Your task to perform on an android device: Go to Maps Image 0: 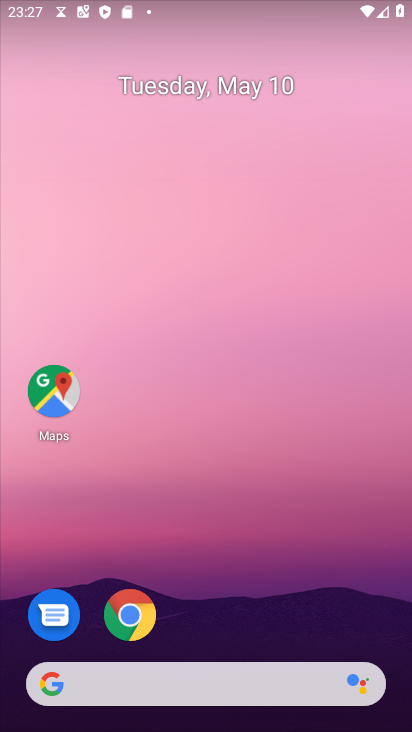
Step 0: click (50, 391)
Your task to perform on an android device: Go to Maps Image 1: 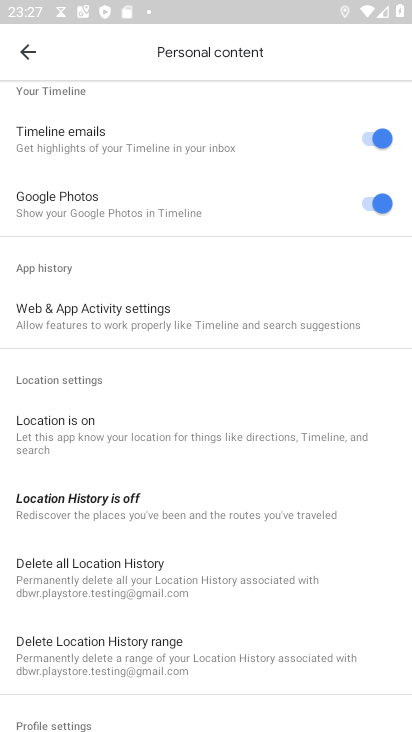
Step 1: task complete